Your task to perform on an android device: set an alarm Image 0: 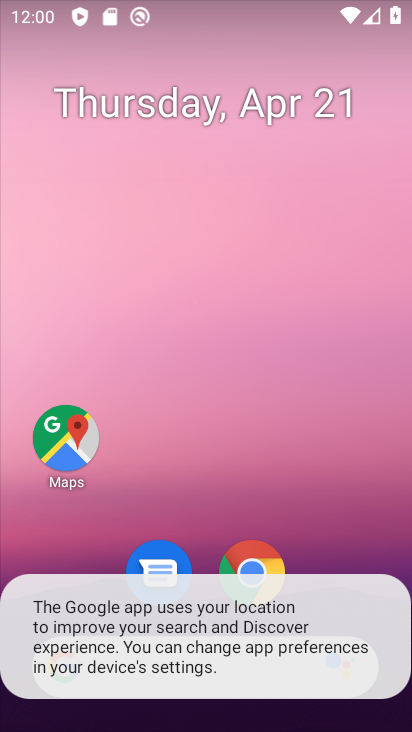
Step 0: drag from (334, 489) to (306, 202)
Your task to perform on an android device: set an alarm Image 1: 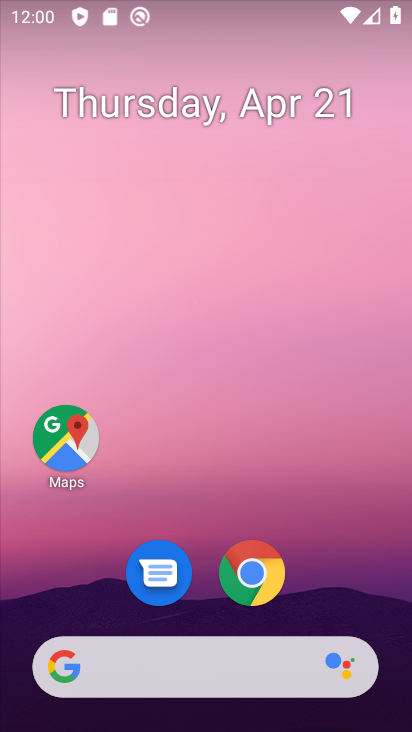
Step 1: drag from (297, 592) to (300, 220)
Your task to perform on an android device: set an alarm Image 2: 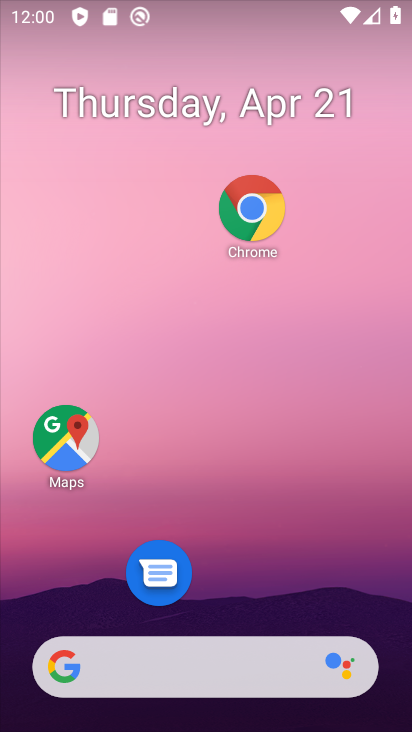
Step 2: drag from (286, 491) to (300, 235)
Your task to perform on an android device: set an alarm Image 3: 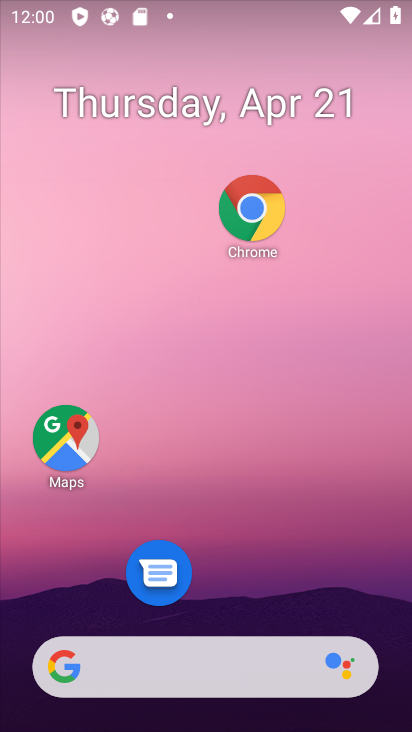
Step 3: drag from (286, 574) to (272, 168)
Your task to perform on an android device: set an alarm Image 4: 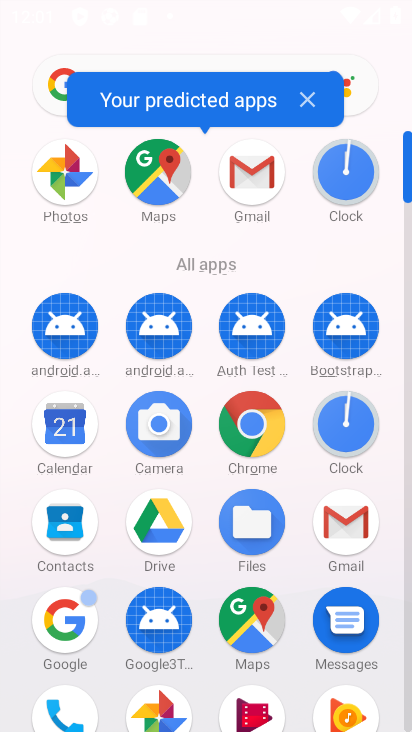
Step 4: click (352, 200)
Your task to perform on an android device: set an alarm Image 5: 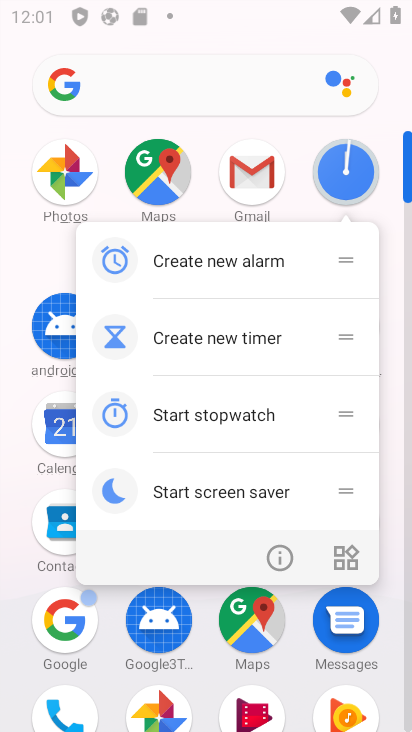
Step 5: click (344, 186)
Your task to perform on an android device: set an alarm Image 6: 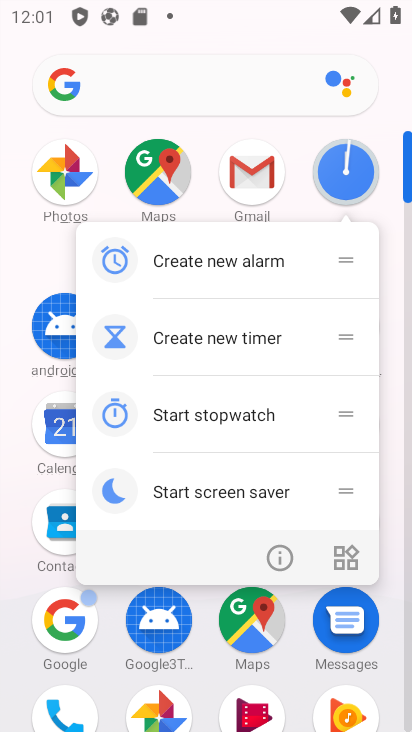
Step 6: click (227, 257)
Your task to perform on an android device: set an alarm Image 7: 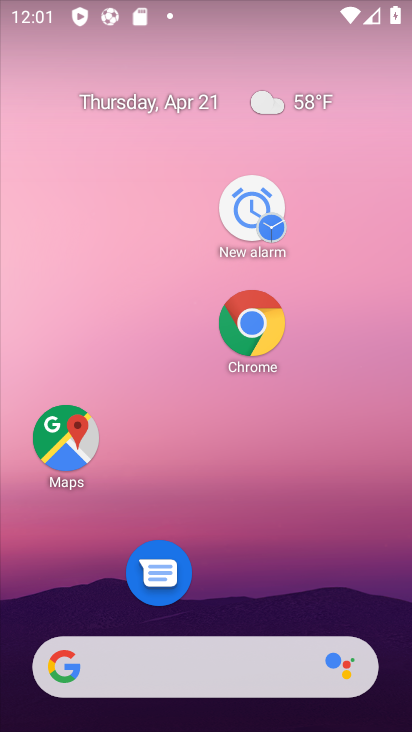
Step 7: click (258, 224)
Your task to perform on an android device: set an alarm Image 8: 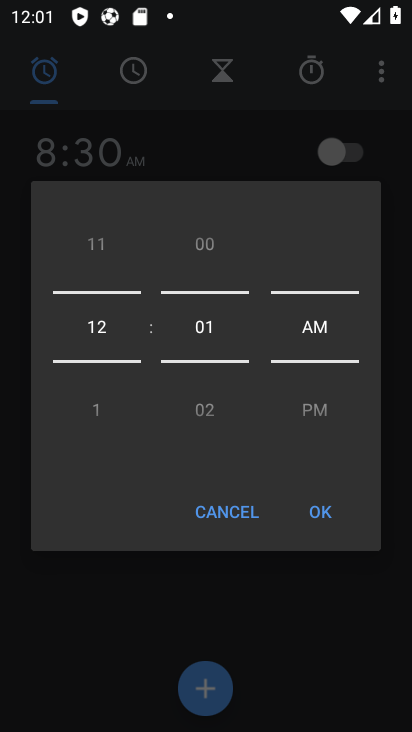
Step 8: drag from (85, 332) to (119, 476)
Your task to perform on an android device: set an alarm Image 9: 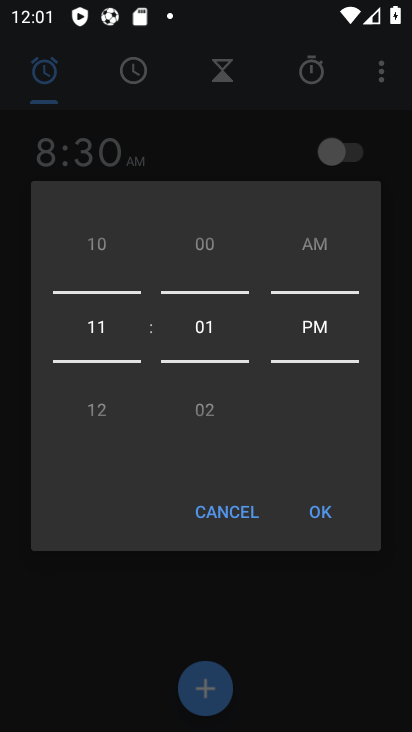
Step 9: drag from (112, 317) to (86, 618)
Your task to perform on an android device: set an alarm Image 10: 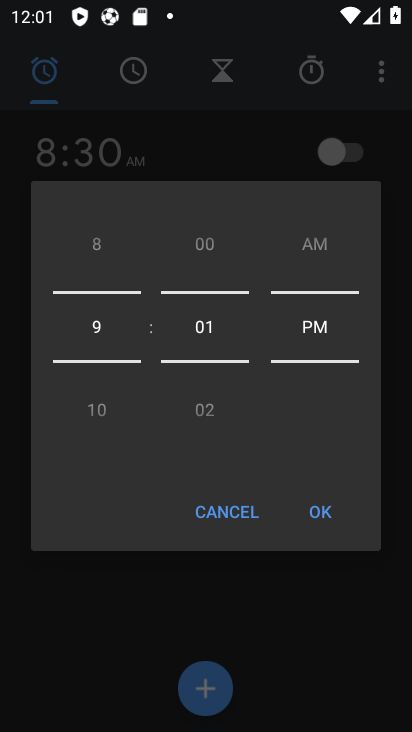
Step 10: drag from (102, 340) to (92, 524)
Your task to perform on an android device: set an alarm Image 11: 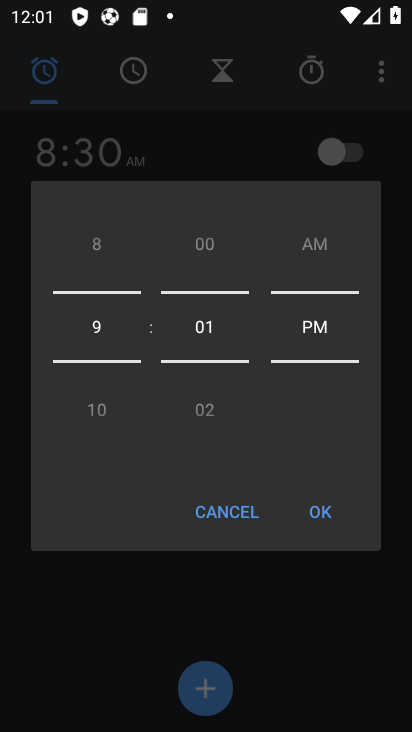
Step 11: click (215, 456)
Your task to perform on an android device: set an alarm Image 12: 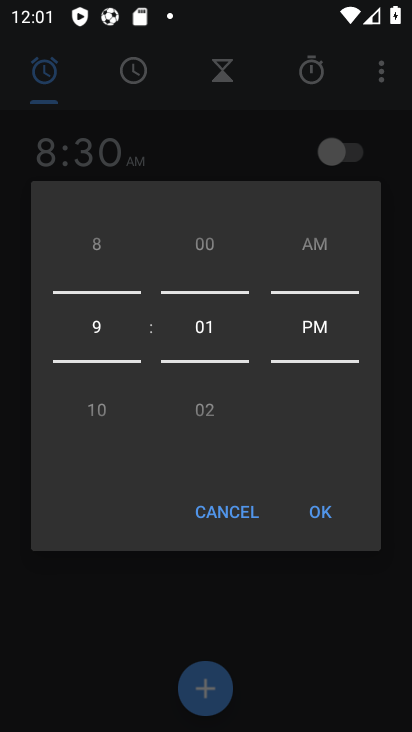
Step 12: drag from (212, 342) to (220, 483)
Your task to perform on an android device: set an alarm Image 13: 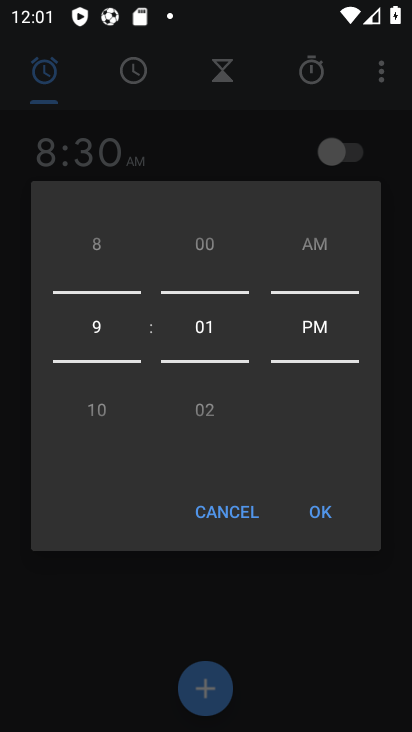
Step 13: drag from (216, 417) to (216, 573)
Your task to perform on an android device: set an alarm Image 14: 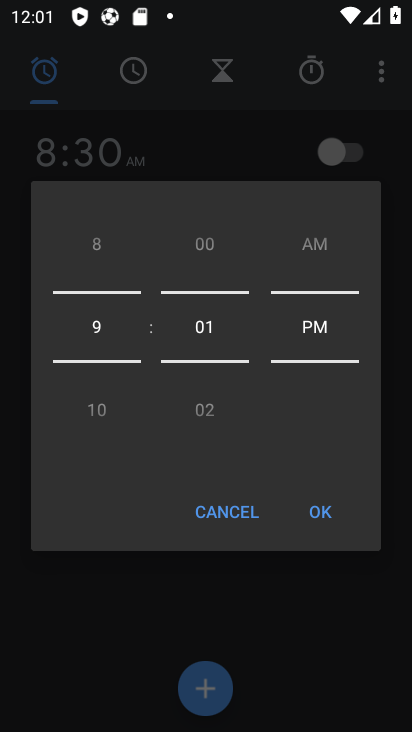
Step 14: drag from (214, 351) to (202, 499)
Your task to perform on an android device: set an alarm Image 15: 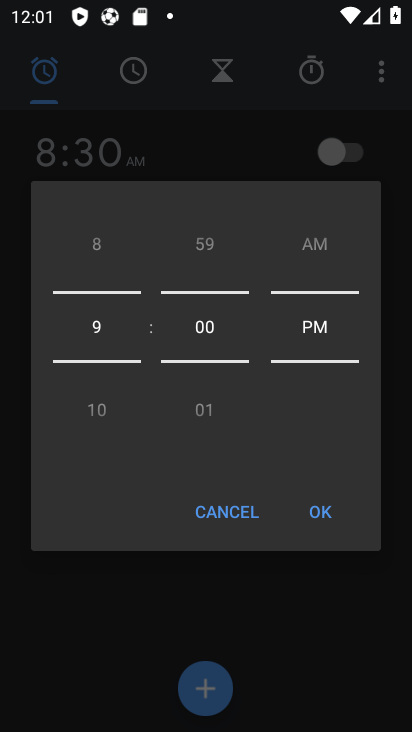
Step 15: click (329, 519)
Your task to perform on an android device: set an alarm Image 16: 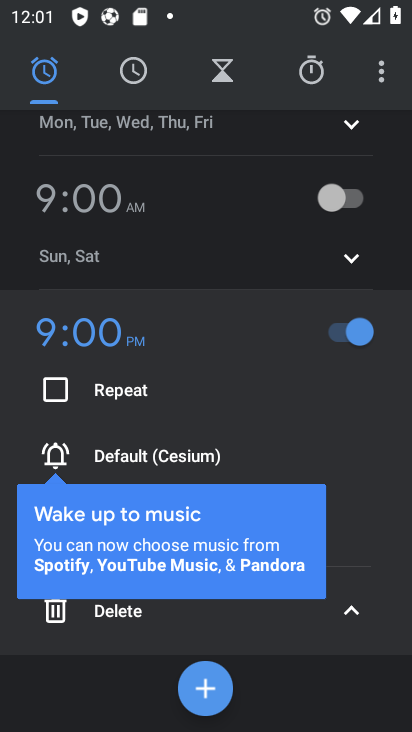
Step 16: task complete